Your task to perform on an android device: turn off data saver in the chrome app Image 0: 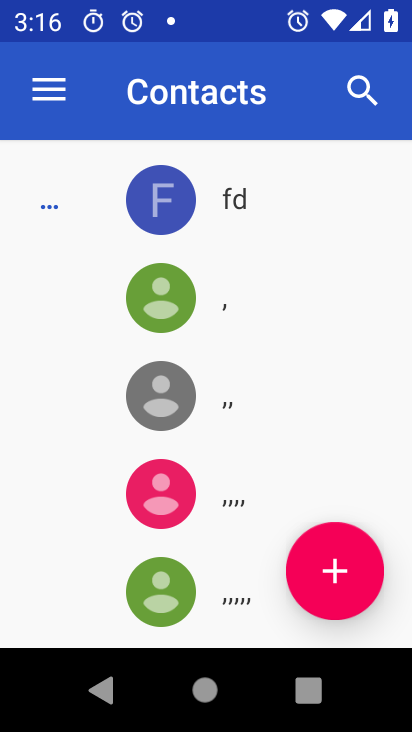
Step 0: press home button
Your task to perform on an android device: turn off data saver in the chrome app Image 1: 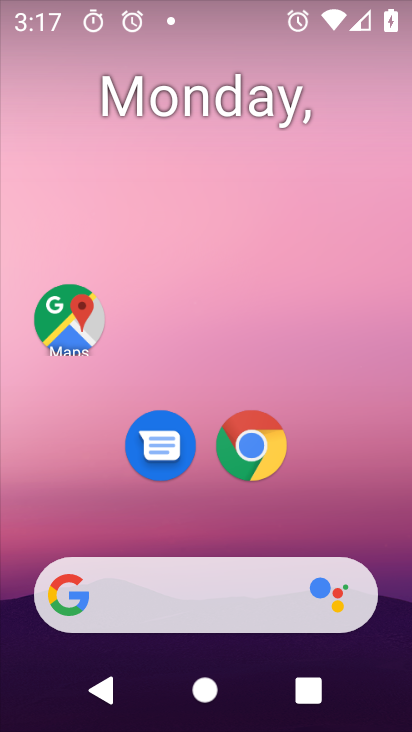
Step 1: click (251, 454)
Your task to perform on an android device: turn off data saver in the chrome app Image 2: 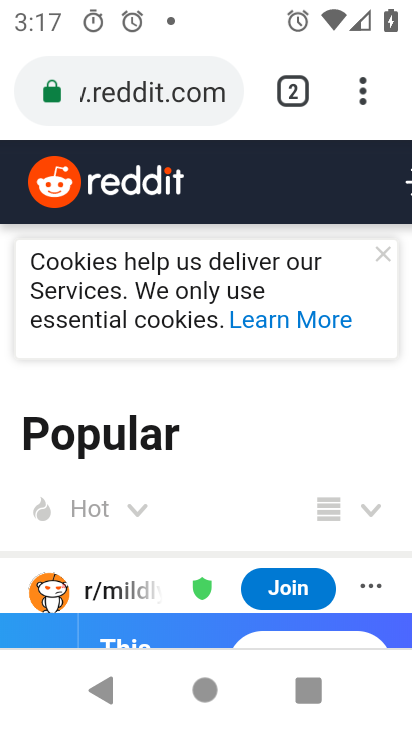
Step 2: drag from (369, 83) to (107, 481)
Your task to perform on an android device: turn off data saver in the chrome app Image 3: 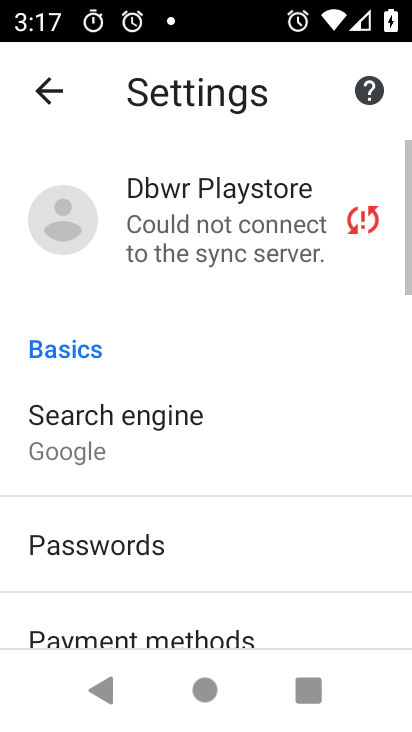
Step 3: drag from (166, 573) to (178, 157)
Your task to perform on an android device: turn off data saver in the chrome app Image 4: 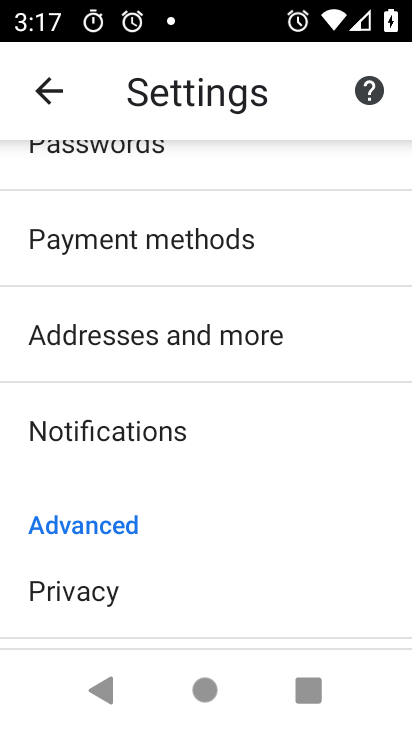
Step 4: drag from (151, 562) to (116, 186)
Your task to perform on an android device: turn off data saver in the chrome app Image 5: 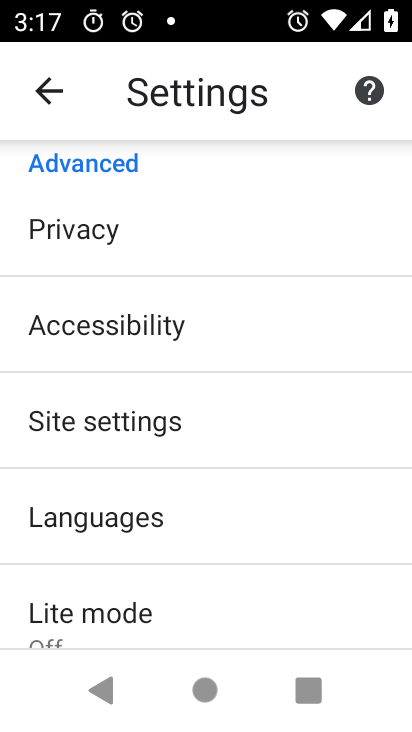
Step 5: click (127, 596)
Your task to perform on an android device: turn off data saver in the chrome app Image 6: 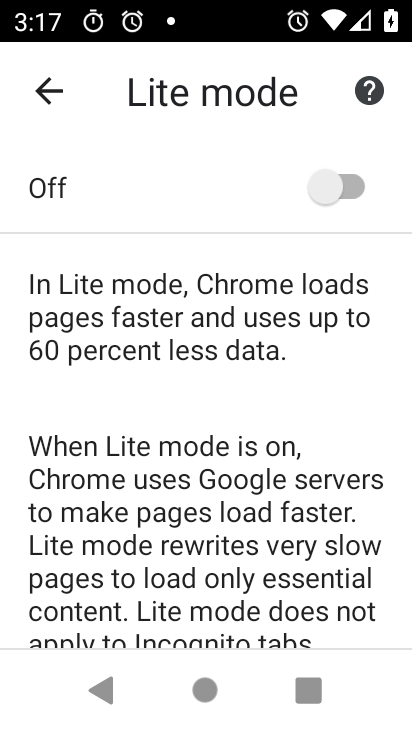
Step 6: task complete